Your task to perform on an android device: set the timer Image 0: 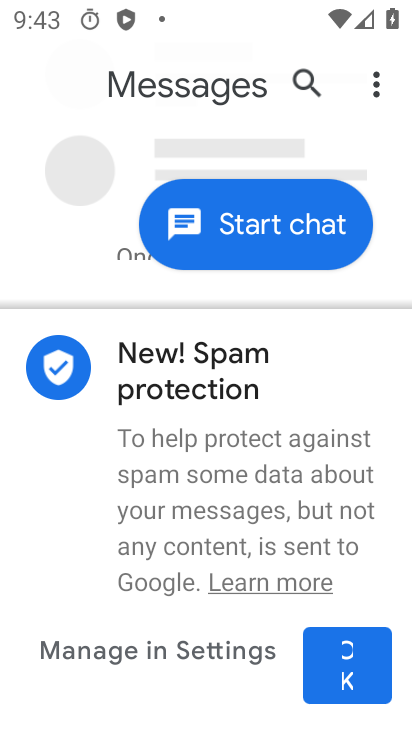
Step 0: drag from (390, 600) to (409, 552)
Your task to perform on an android device: set the timer Image 1: 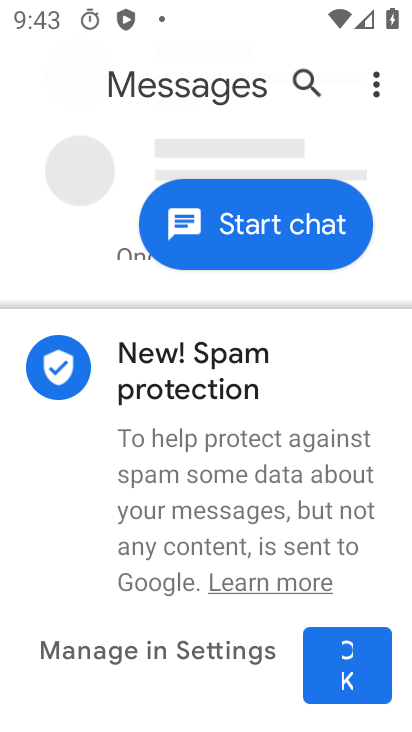
Step 1: press home button
Your task to perform on an android device: set the timer Image 2: 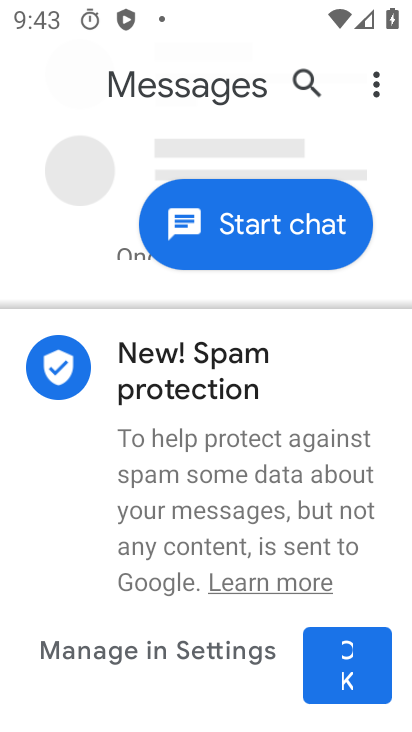
Step 2: click (409, 552)
Your task to perform on an android device: set the timer Image 3: 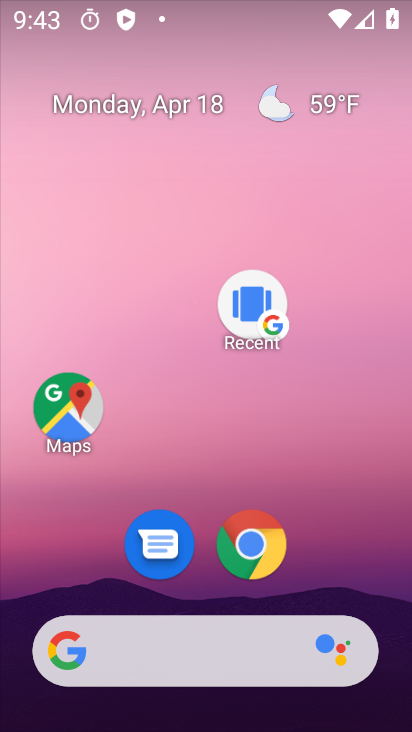
Step 3: drag from (363, 586) to (363, 211)
Your task to perform on an android device: set the timer Image 4: 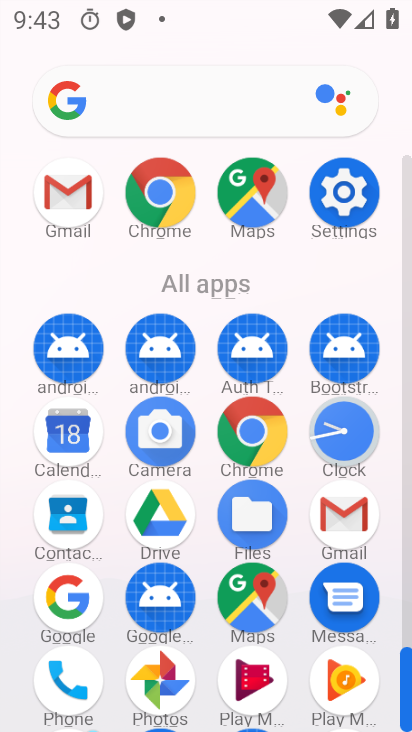
Step 4: click (351, 441)
Your task to perform on an android device: set the timer Image 5: 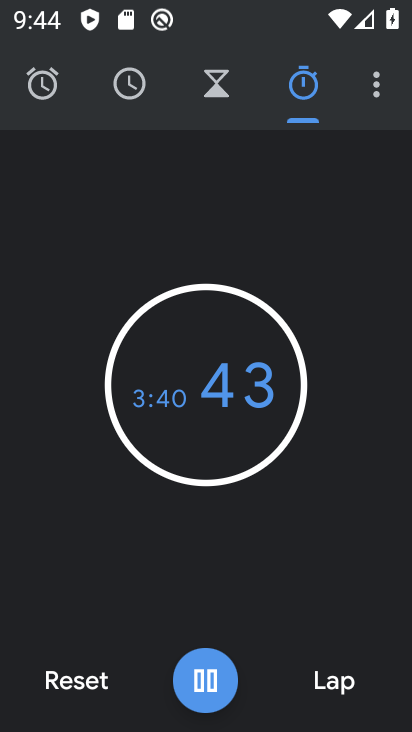
Step 5: click (215, 98)
Your task to perform on an android device: set the timer Image 6: 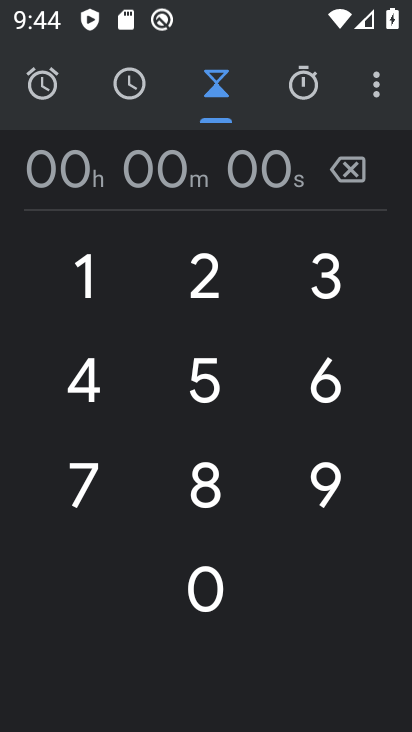
Step 6: type "10000"
Your task to perform on an android device: set the timer Image 7: 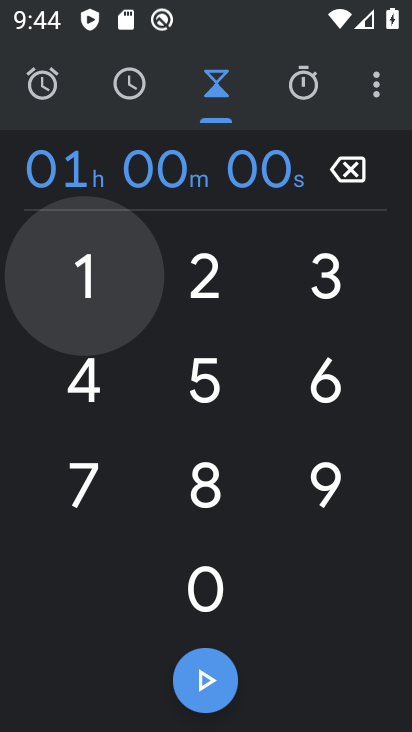
Step 7: click (207, 670)
Your task to perform on an android device: set the timer Image 8: 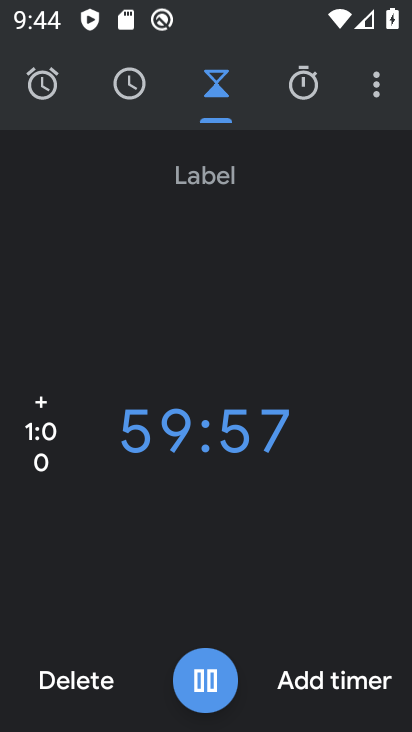
Step 8: task complete